Your task to perform on an android device: Open the Play Movies app and select the watchlist tab. Image 0: 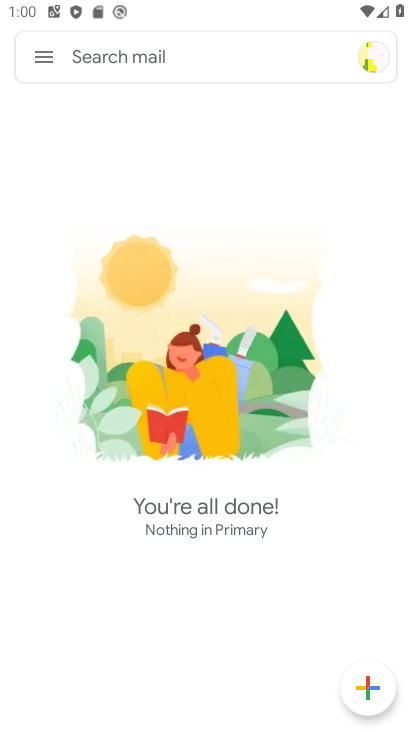
Step 0: press home button
Your task to perform on an android device: Open the Play Movies app and select the watchlist tab. Image 1: 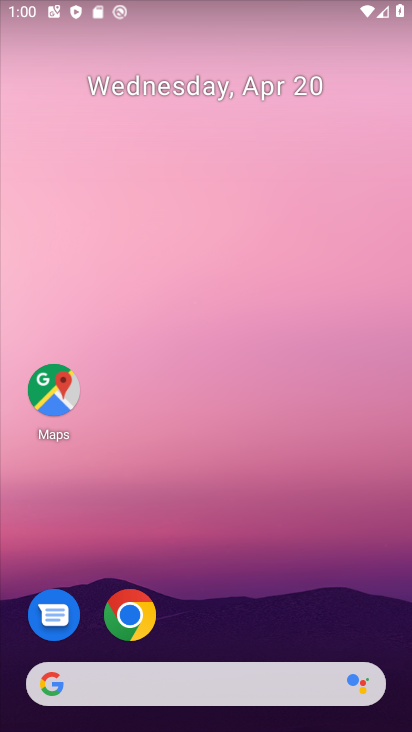
Step 1: drag from (344, 344) to (337, 127)
Your task to perform on an android device: Open the Play Movies app and select the watchlist tab. Image 2: 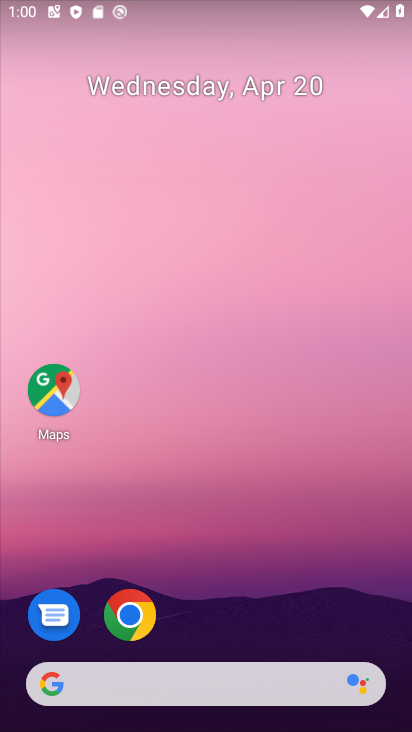
Step 2: drag from (353, 352) to (318, 248)
Your task to perform on an android device: Open the Play Movies app and select the watchlist tab. Image 3: 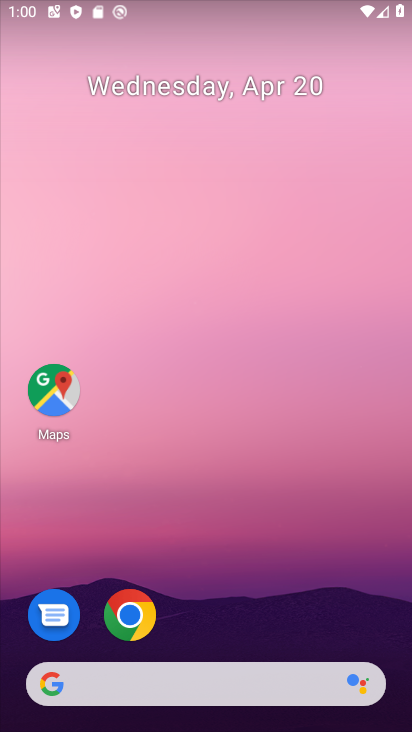
Step 3: drag from (391, 641) to (337, 217)
Your task to perform on an android device: Open the Play Movies app and select the watchlist tab. Image 4: 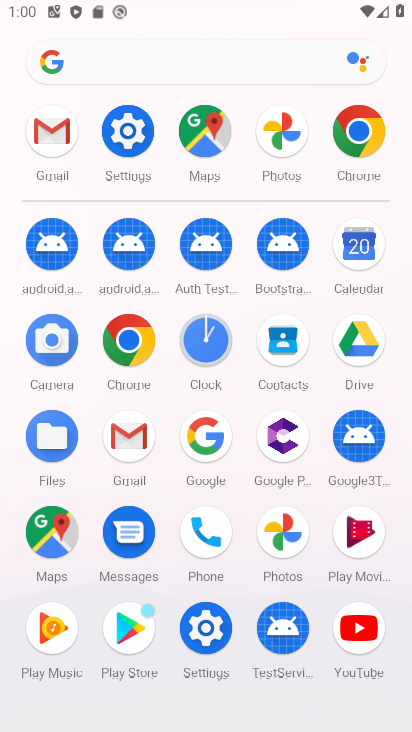
Step 4: click (355, 540)
Your task to perform on an android device: Open the Play Movies app and select the watchlist tab. Image 5: 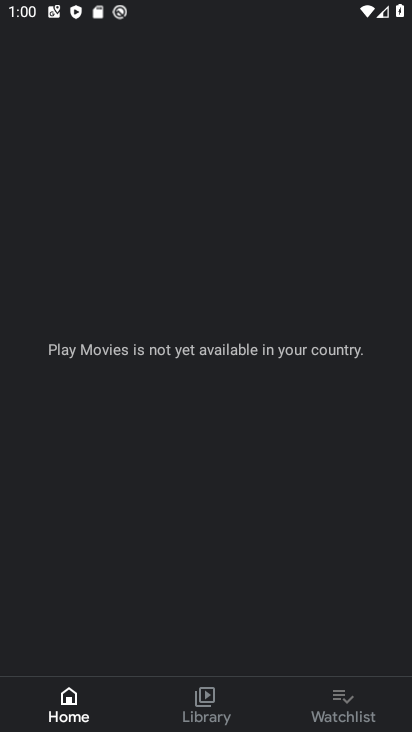
Step 5: click (353, 700)
Your task to perform on an android device: Open the Play Movies app and select the watchlist tab. Image 6: 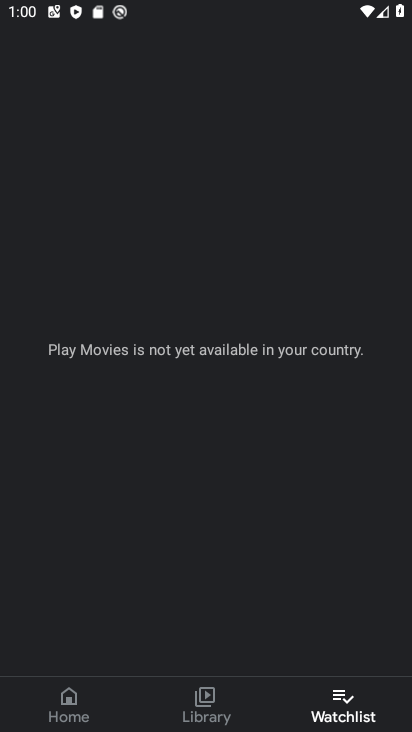
Step 6: task complete